Your task to perform on an android device: Open the calendar app, open the side menu, and click the "Day" option Image 0: 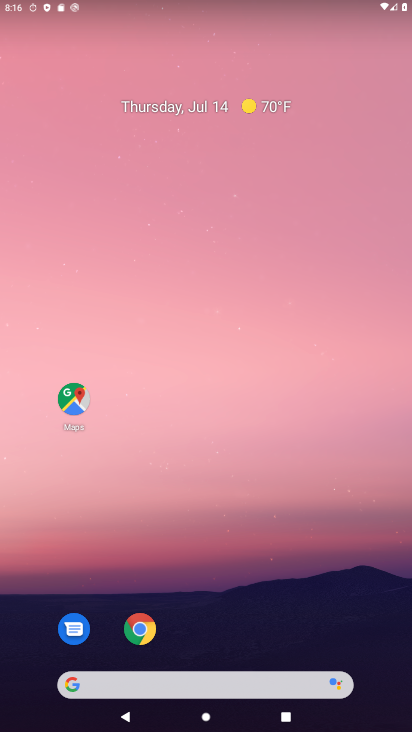
Step 0: drag from (301, 634) to (371, 105)
Your task to perform on an android device: Open the calendar app, open the side menu, and click the "Day" option Image 1: 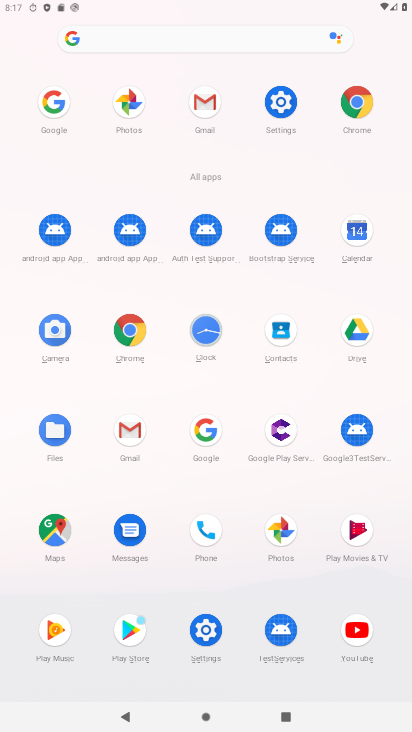
Step 1: click (371, 250)
Your task to perform on an android device: Open the calendar app, open the side menu, and click the "Day" option Image 2: 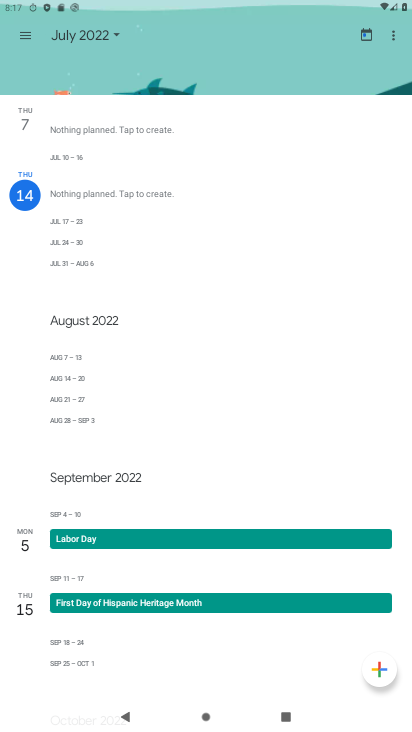
Step 2: click (19, 37)
Your task to perform on an android device: Open the calendar app, open the side menu, and click the "Day" option Image 3: 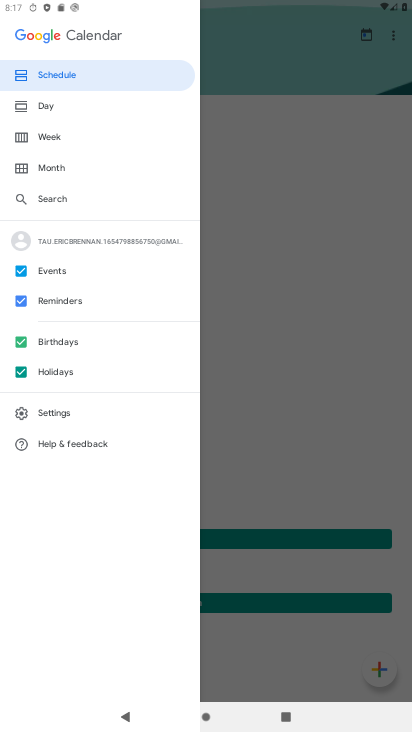
Step 3: click (34, 106)
Your task to perform on an android device: Open the calendar app, open the side menu, and click the "Day" option Image 4: 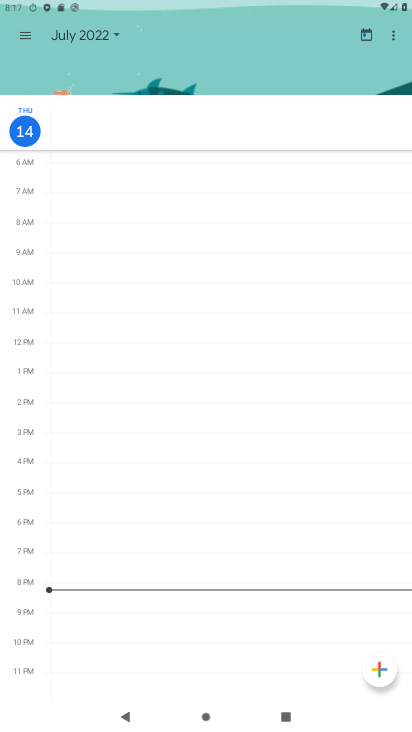
Step 4: task complete